Your task to perform on an android device: turn on wifi Image 0: 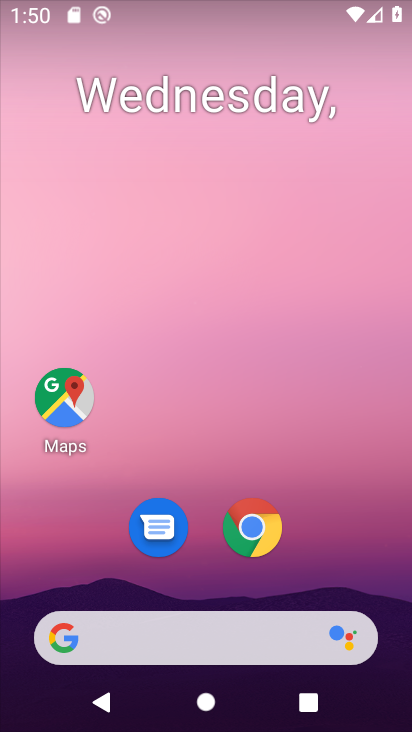
Step 0: click (165, 181)
Your task to perform on an android device: turn on wifi Image 1: 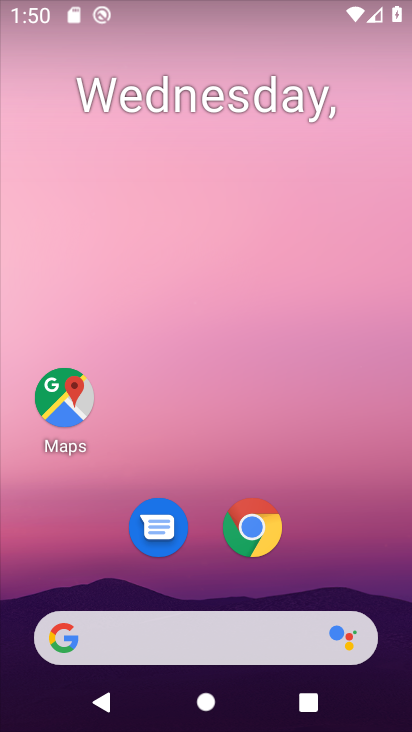
Step 1: click (78, 60)
Your task to perform on an android device: turn on wifi Image 2: 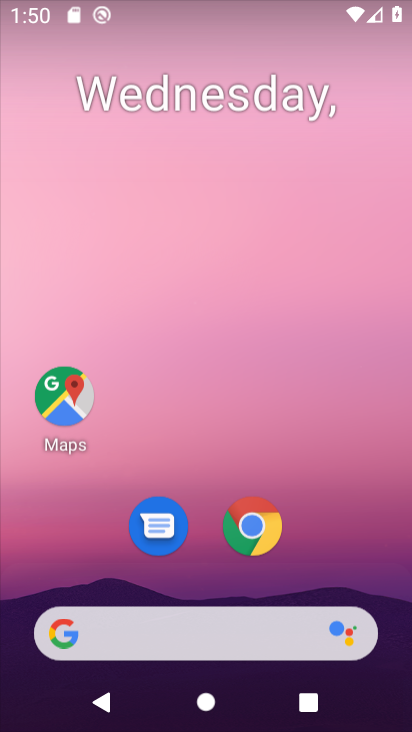
Step 2: drag from (185, 321) to (5, 75)
Your task to perform on an android device: turn on wifi Image 3: 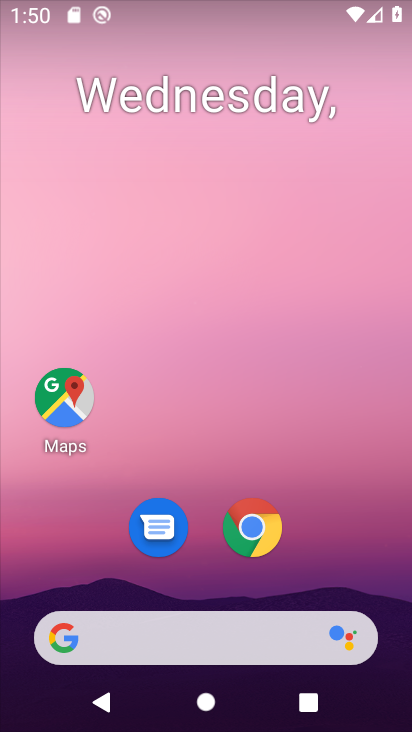
Step 3: drag from (156, 315) to (119, 169)
Your task to perform on an android device: turn on wifi Image 4: 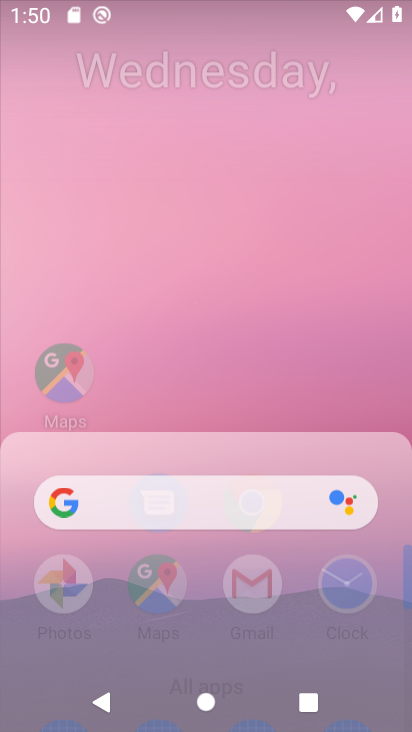
Step 4: drag from (279, 560) to (119, 40)
Your task to perform on an android device: turn on wifi Image 5: 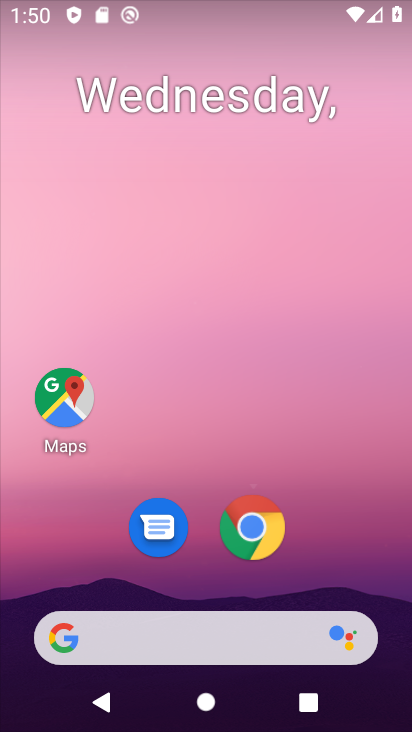
Step 5: drag from (286, 551) to (168, 126)
Your task to perform on an android device: turn on wifi Image 6: 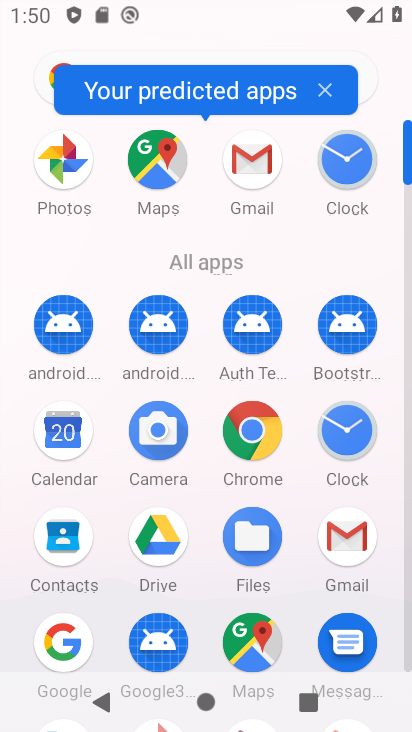
Step 6: drag from (297, 382) to (280, 72)
Your task to perform on an android device: turn on wifi Image 7: 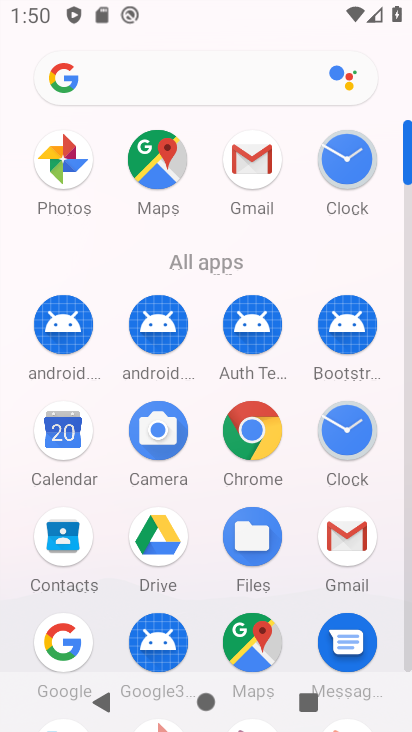
Step 7: drag from (269, 587) to (172, 86)
Your task to perform on an android device: turn on wifi Image 8: 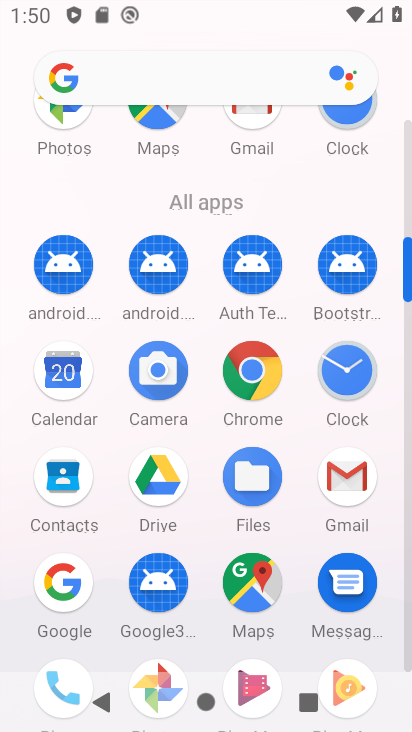
Step 8: drag from (241, 487) to (127, 165)
Your task to perform on an android device: turn on wifi Image 9: 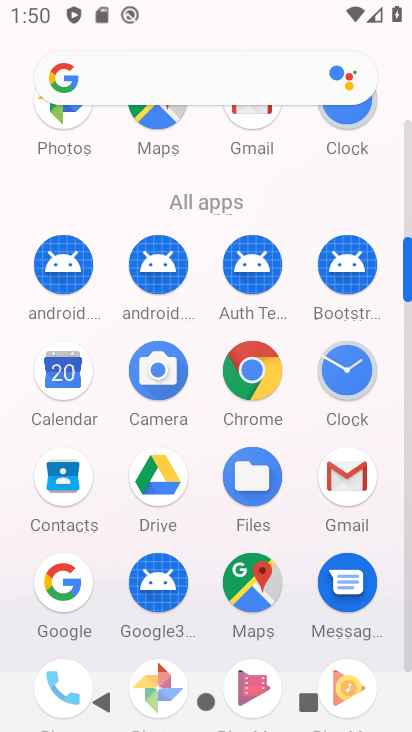
Step 9: drag from (176, 606) to (72, 247)
Your task to perform on an android device: turn on wifi Image 10: 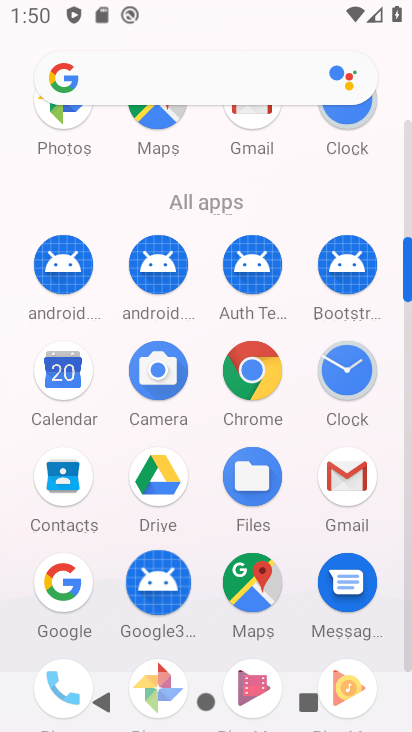
Step 10: drag from (228, 158) to (269, 170)
Your task to perform on an android device: turn on wifi Image 11: 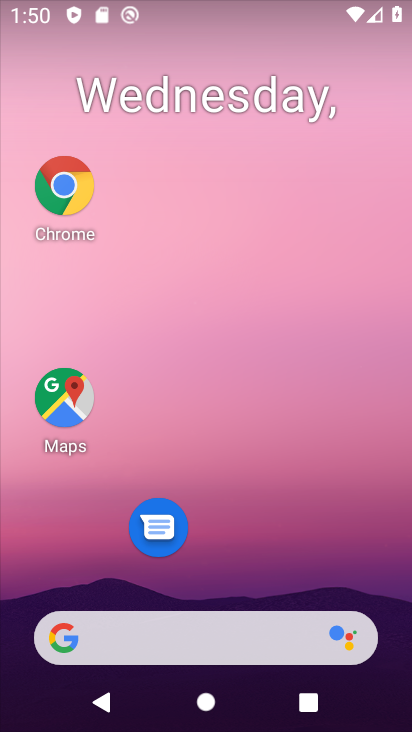
Step 11: drag from (39, 253) to (31, 22)
Your task to perform on an android device: turn on wifi Image 12: 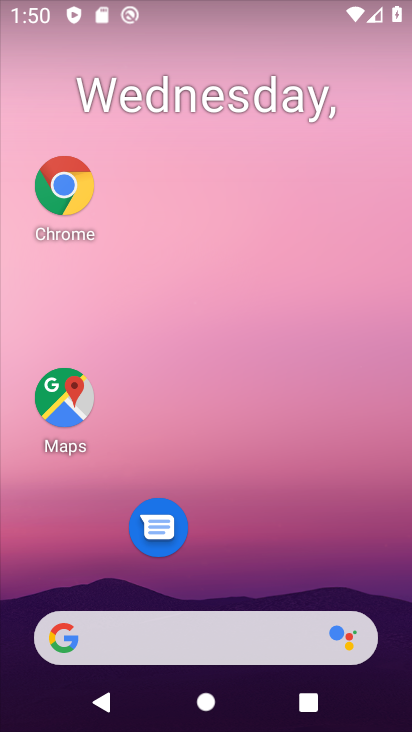
Step 12: drag from (108, 403) to (197, 120)
Your task to perform on an android device: turn on wifi Image 13: 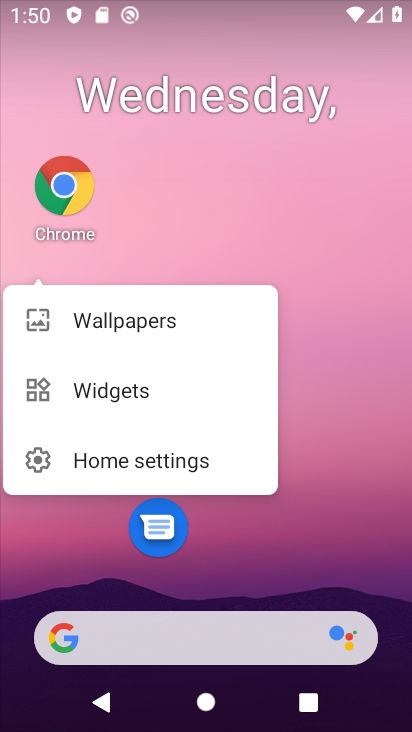
Step 13: drag from (124, 203) to (57, 69)
Your task to perform on an android device: turn on wifi Image 14: 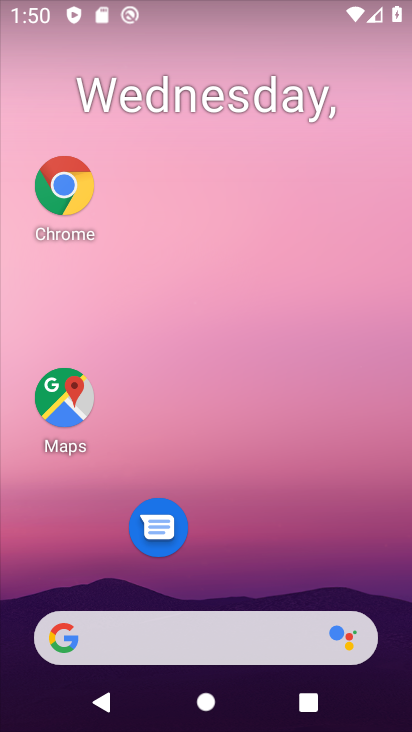
Step 14: drag from (234, 356) to (184, 160)
Your task to perform on an android device: turn on wifi Image 15: 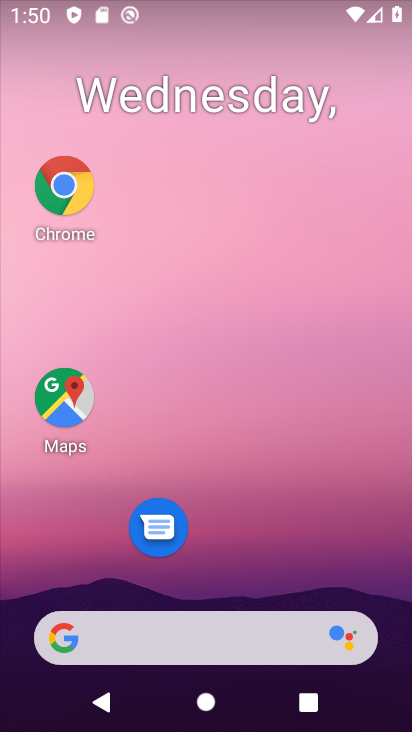
Step 15: drag from (169, 172) to (184, 60)
Your task to perform on an android device: turn on wifi Image 16: 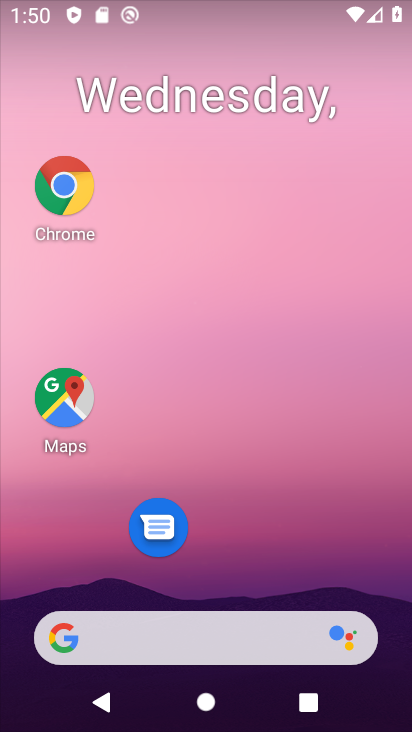
Step 16: drag from (233, 352) to (213, 265)
Your task to perform on an android device: turn on wifi Image 17: 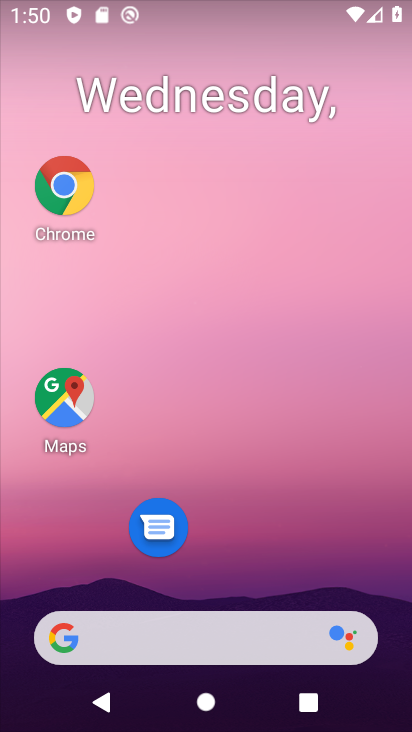
Step 17: drag from (219, 498) to (205, 429)
Your task to perform on an android device: turn on wifi Image 18: 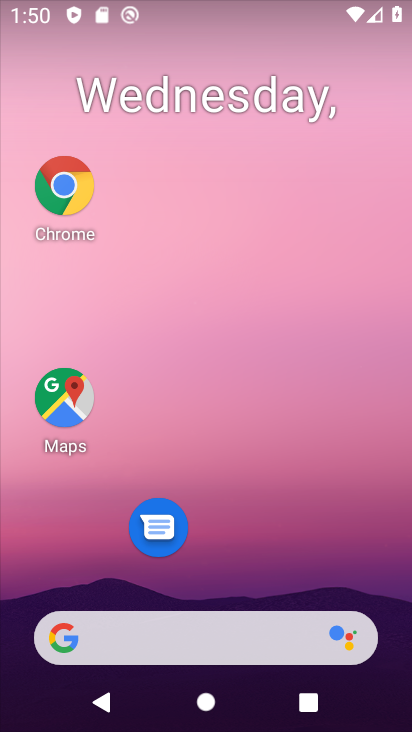
Step 18: drag from (246, 454) to (215, 190)
Your task to perform on an android device: turn on wifi Image 19: 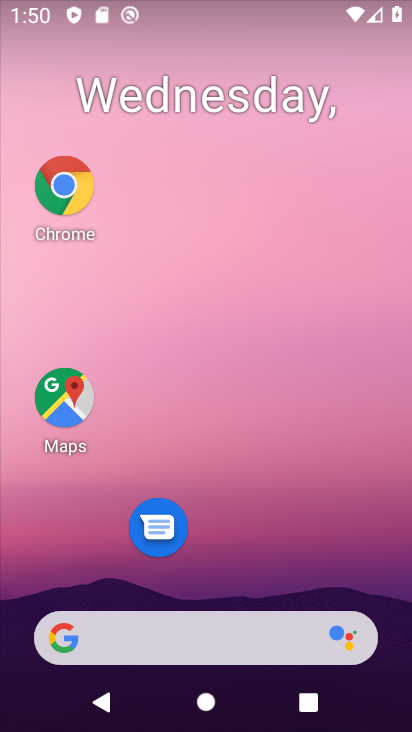
Step 19: click (267, 163)
Your task to perform on an android device: turn on wifi Image 20: 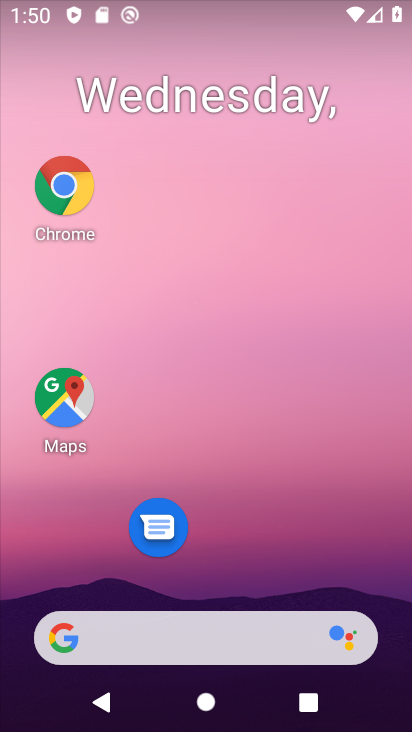
Step 20: drag from (155, 178) to (91, 72)
Your task to perform on an android device: turn on wifi Image 21: 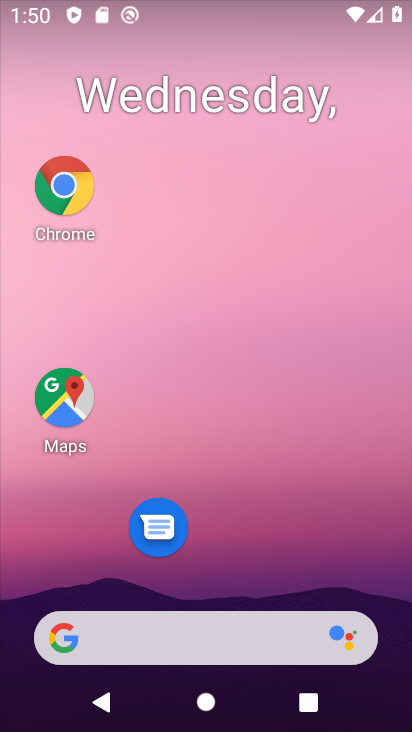
Step 21: drag from (204, 442) to (11, 11)
Your task to perform on an android device: turn on wifi Image 22: 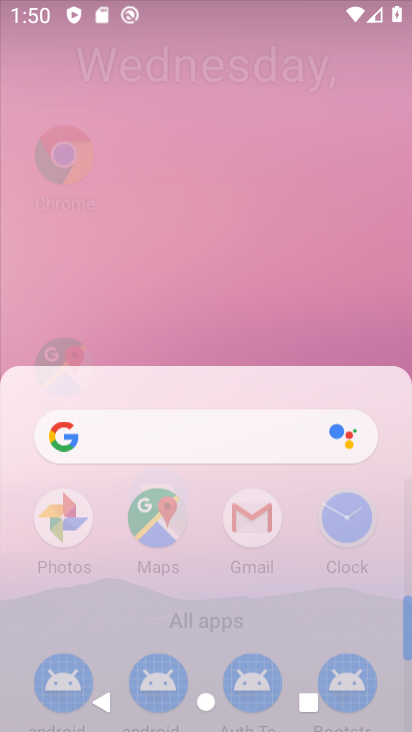
Step 22: click (168, 87)
Your task to perform on an android device: turn on wifi Image 23: 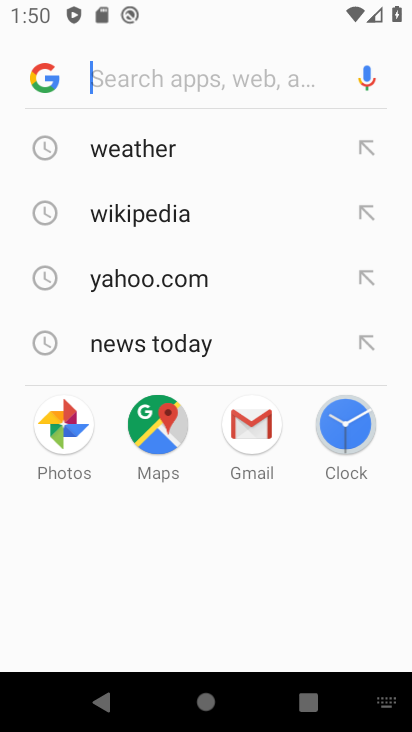
Step 23: press back button
Your task to perform on an android device: turn on wifi Image 24: 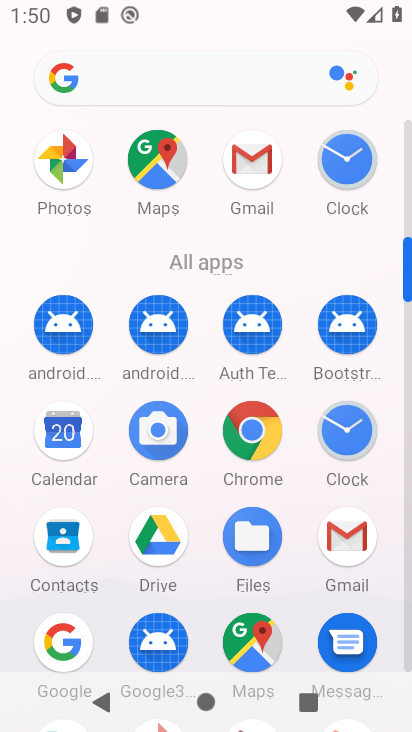
Step 24: drag from (311, 579) to (228, 34)
Your task to perform on an android device: turn on wifi Image 25: 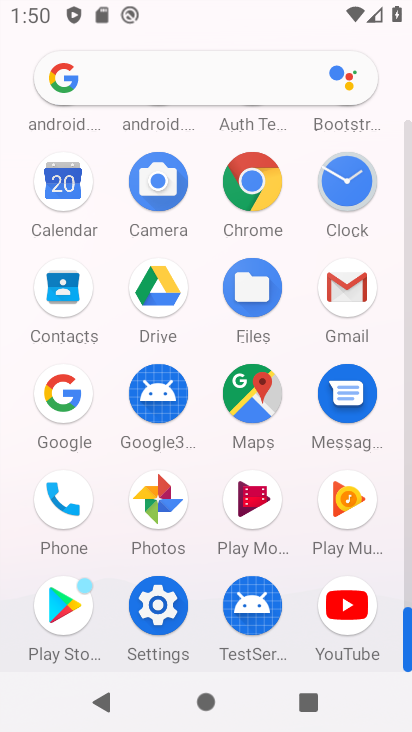
Step 25: click (151, 613)
Your task to perform on an android device: turn on wifi Image 26: 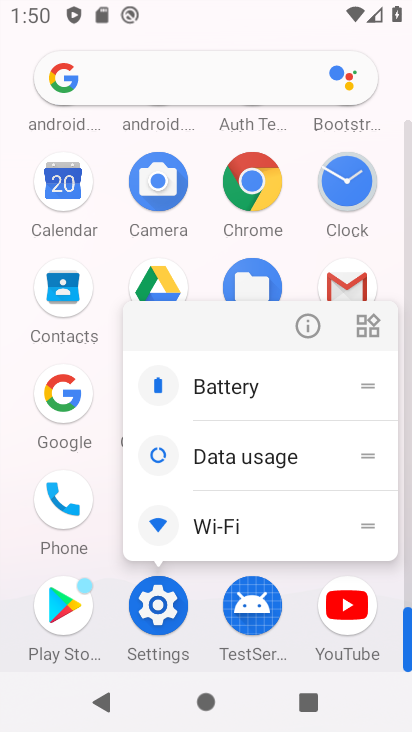
Step 26: click (151, 601)
Your task to perform on an android device: turn on wifi Image 27: 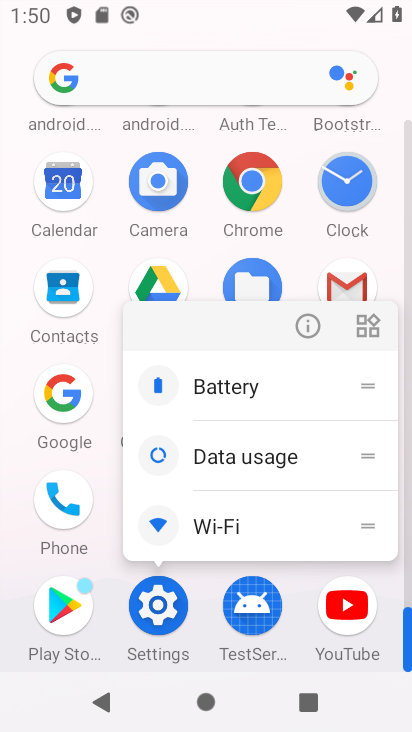
Step 27: click (151, 601)
Your task to perform on an android device: turn on wifi Image 28: 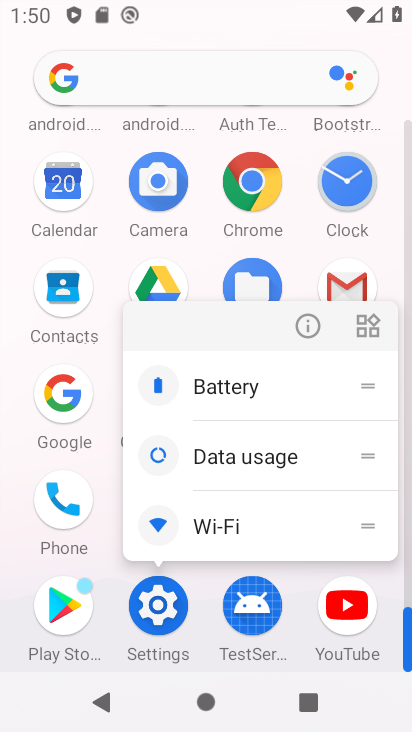
Step 28: click (151, 601)
Your task to perform on an android device: turn on wifi Image 29: 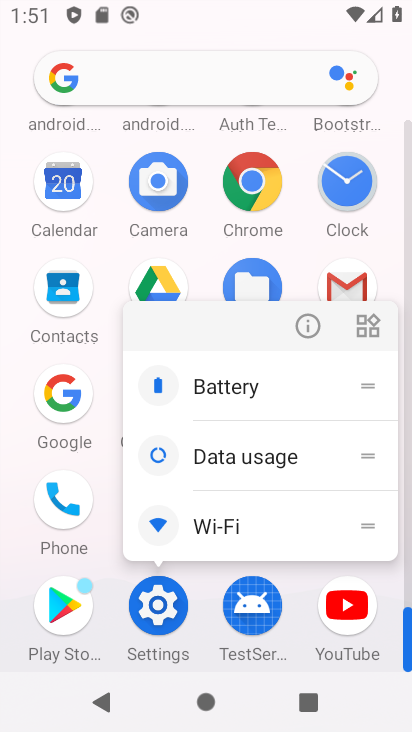
Step 29: click (187, 527)
Your task to perform on an android device: turn on wifi Image 30: 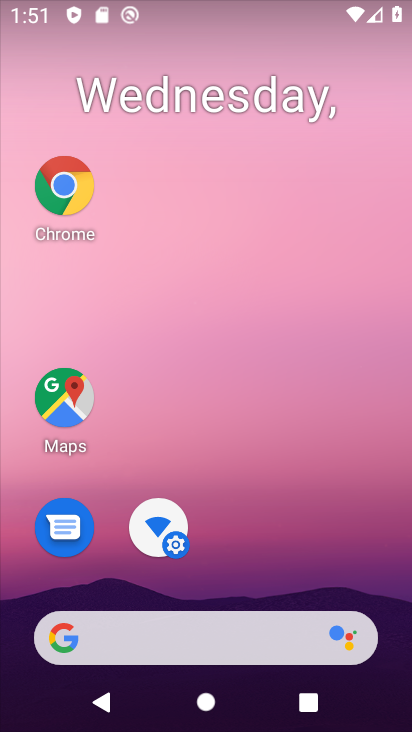
Step 30: click (174, 541)
Your task to perform on an android device: turn on wifi Image 31: 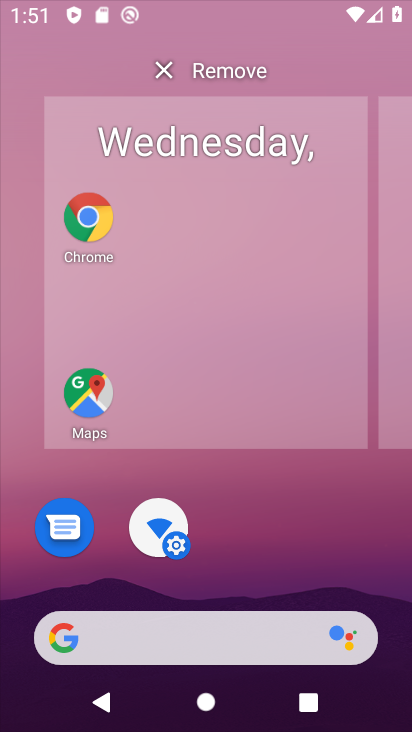
Step 31: click (174, 541)
Your task to perform on an android device: turn on wifi Image 32: 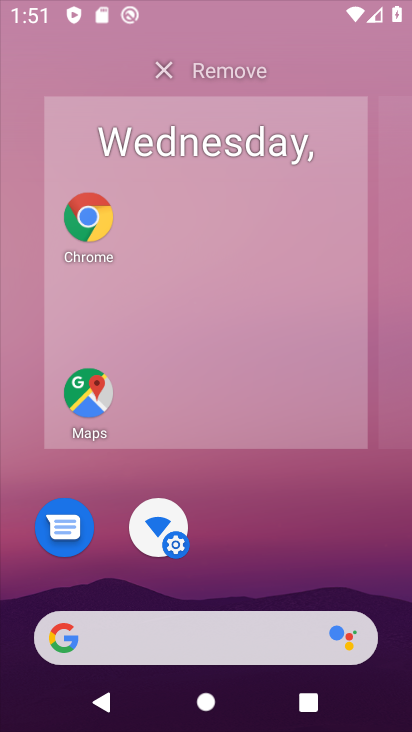
Step 32: drag from (156, 253) to (405, 482)
Your task to perform on an android device: turn on wifi Image 33: 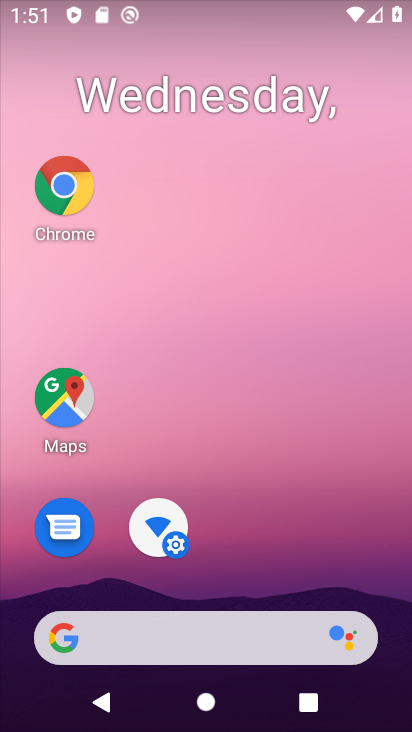
Step 33: drag from (265, 601) to (113, 87)
Your task to perform on an android device: turn on wifi Image 34: 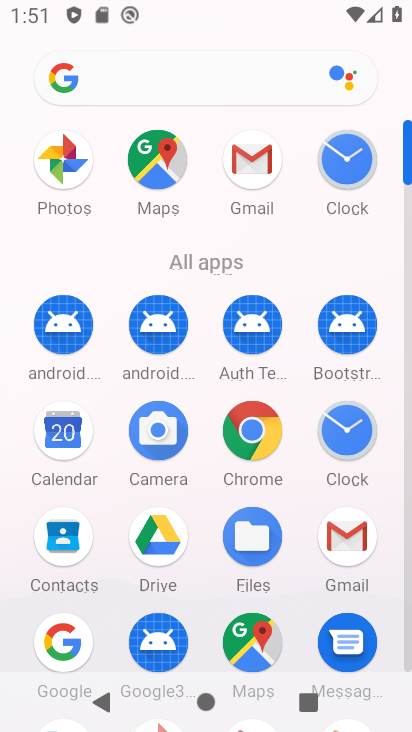
Step 34: drag from (134, 325) to (105, 120)
Your task to perform on an android device: turn on wifi Image 35: 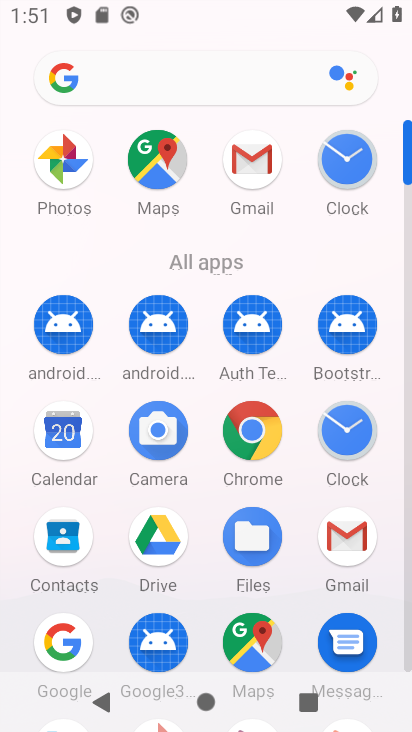
Step 35: drag from (288, 520) to (282, 95)
Your task to perform on an android device: turn on wifi Image 36: 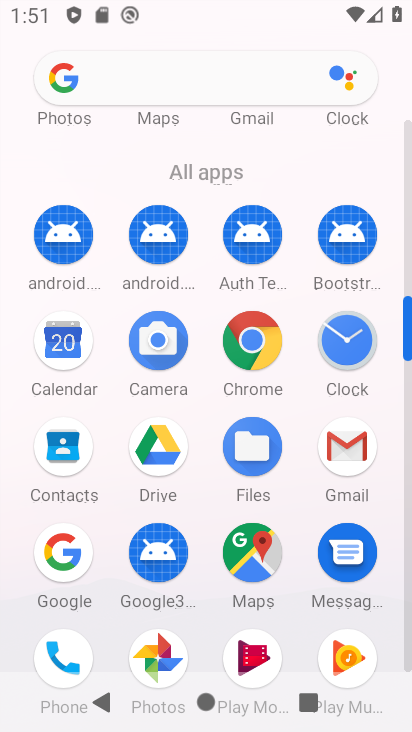
Step 36: drag from (276, 485) to (204, 68)
Your task to perform on an android device: turn on wifi Image 37: 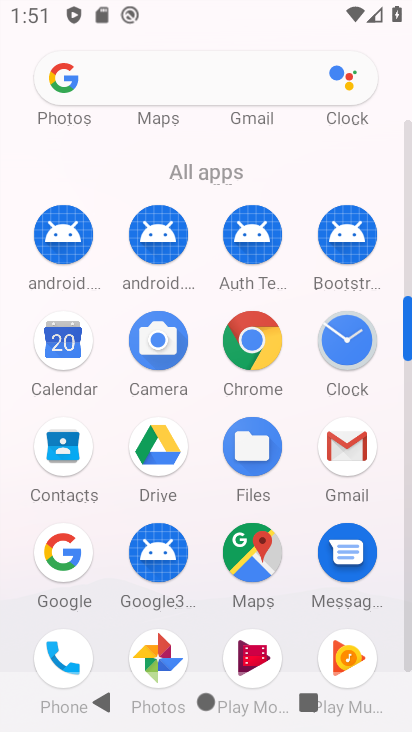
Step 37: drag from (273, 280) to (214, 119)
Your task to perform on an android device: turn on wifi Image 38: 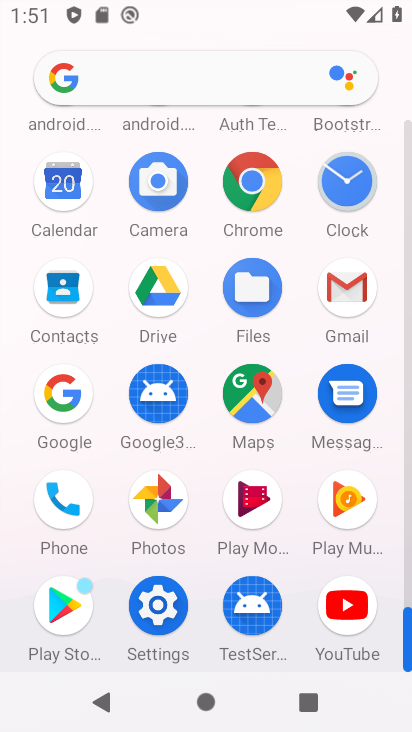
Step 38: click (164, 609)
Your task to perform on an android device: turn on wifi Image 39: 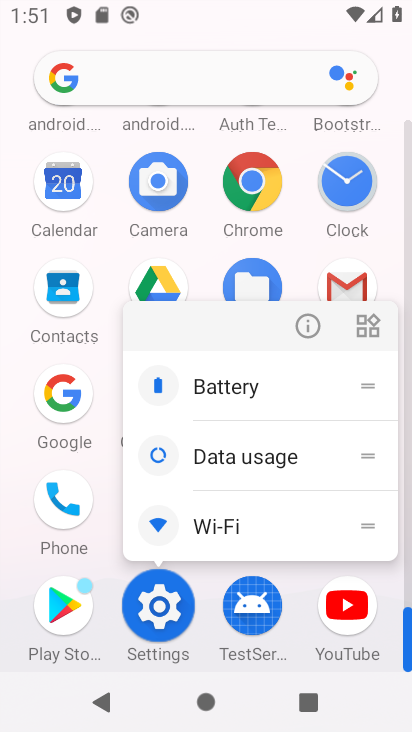
Step 39: click (164, 609)
Your task to perform on an android device: turn on wifi Image 40: 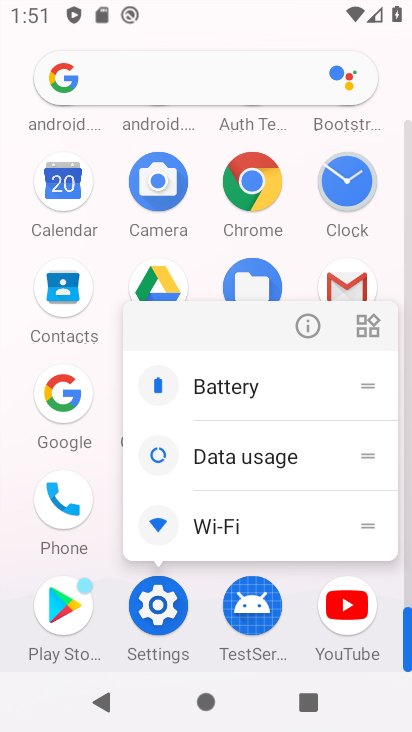
Step 40: click (179, 522)
Your task to perform on an android device: turn on wifi Image 41: 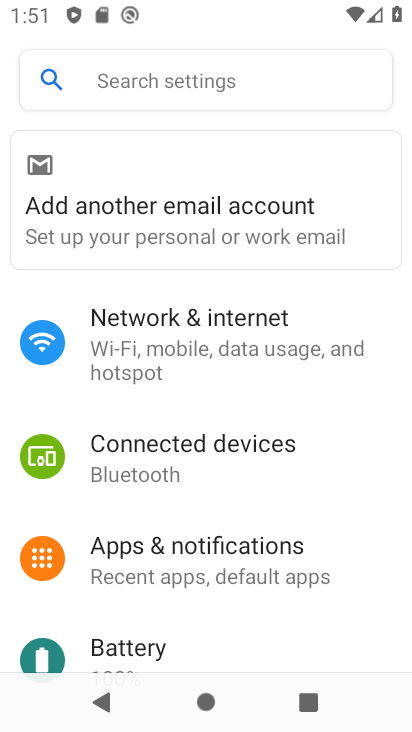
Step 41: click (196, 343)
Your task to perform on an android device: turn on wifi Image 42: 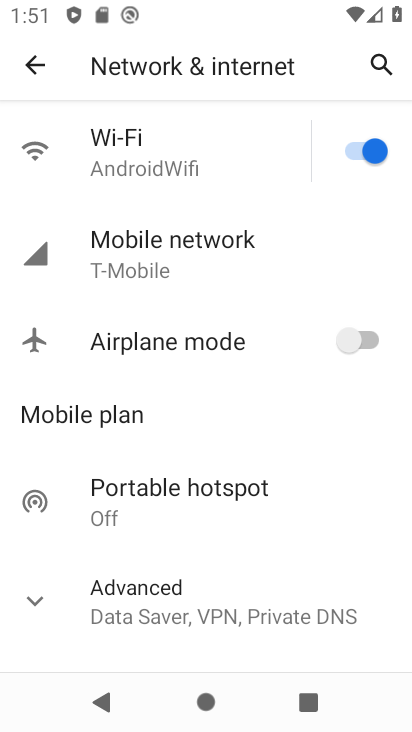
Step 42: task complete